Your task to perform on an android device: What's on my calendar tomorrow? Image 0: 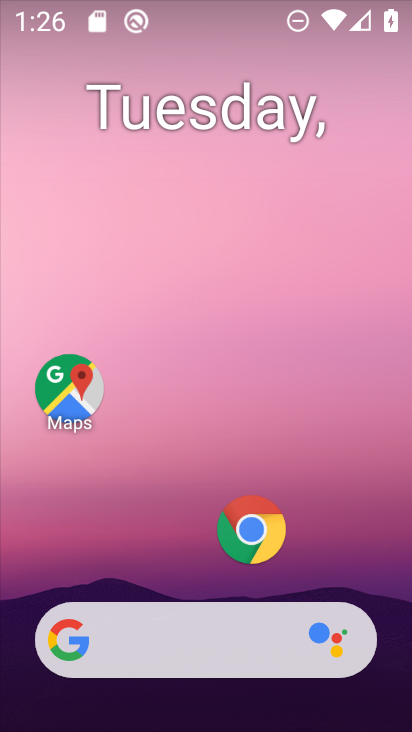
Step 0: drag from (203, 680) to (249, 118)
Your task to perform on an android device: What's on my calendar tomorrow? Image 1: 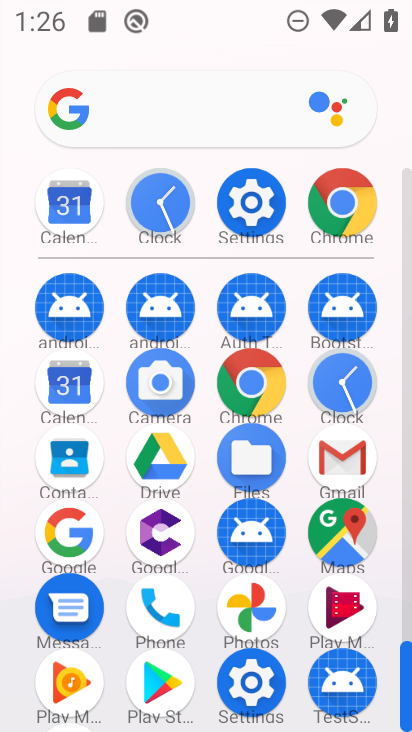
Step 1: click (73, 391)
Your task to perform on an android device: What's on my calendar tomorrow? Image 2: 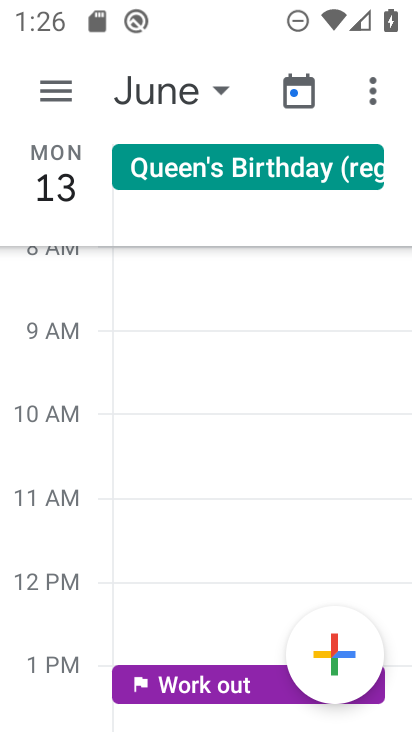
Step 2: click (60, 91)
Your task to perform on an android device: What's on my calendar tomorrow? Image 3: 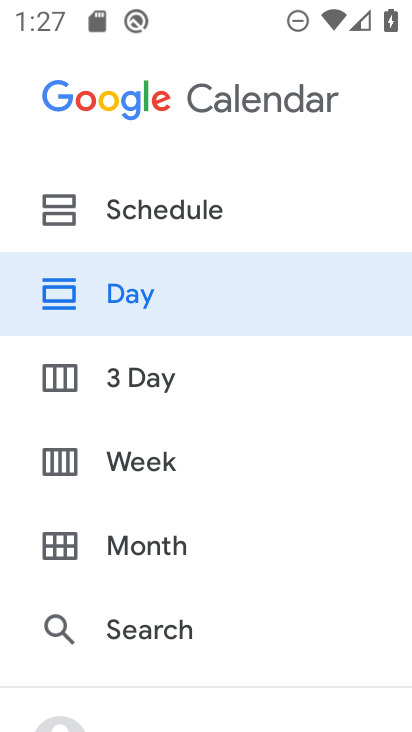
Step 3: click (136, 534)
Your task to perform on an android device: What's on my calendar tomorrow? Image 4: 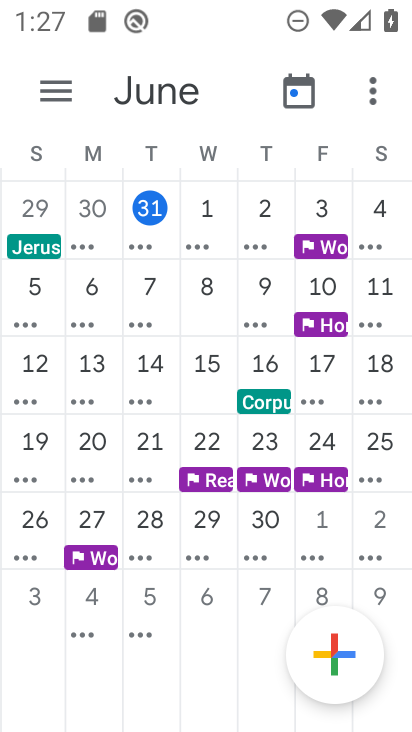
Step 4: click (207, 208)
Your task to perform on an android device: What's on my calendar tomorrow? Image 5: 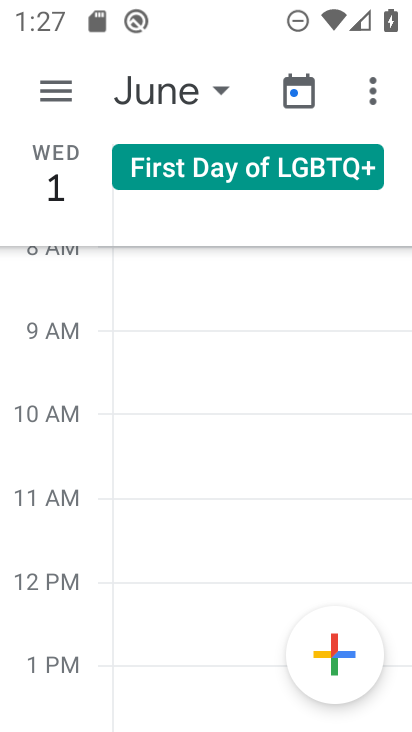
Step 5: task complete